Your task to perform on an android device: create a new album in the google photos Image 0: 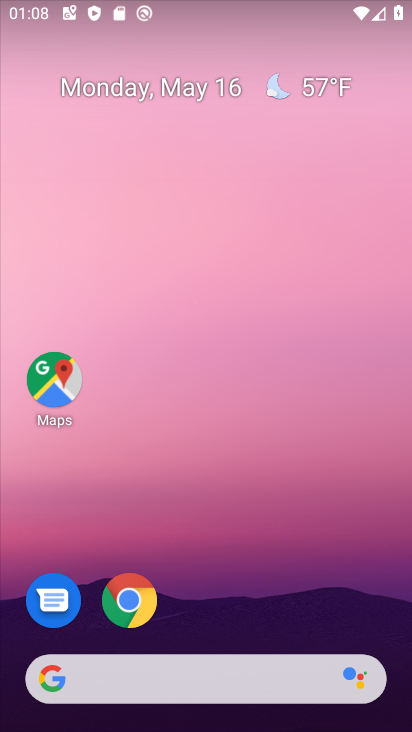
Step 0: drag from (203, 634) to (215, 260)
Your task to perform on an android device: create a new album in the google photos Image 1: 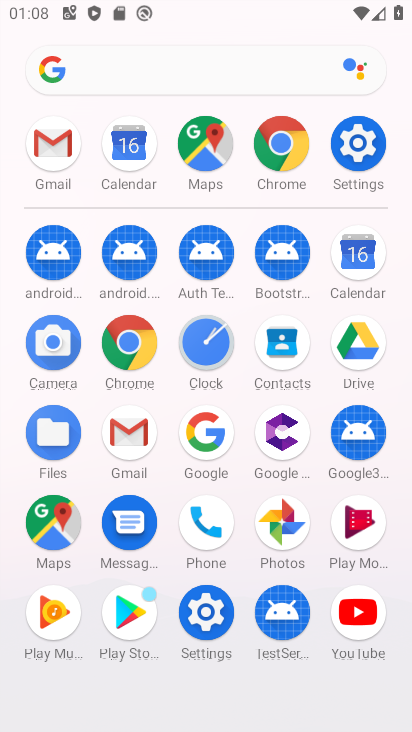
Step 1: click (277, 515)
Your task to perform on an android device: create a new album in the google photos Image 2: 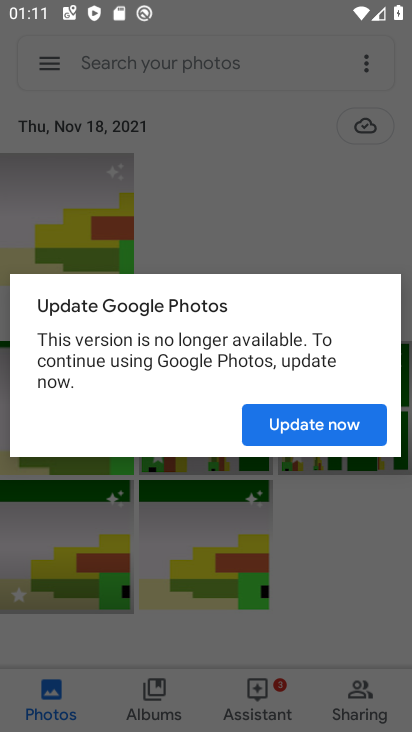
Step 2: click (317, 431)
Your task to perform on an android device: create a new album in the google photos Image 3: 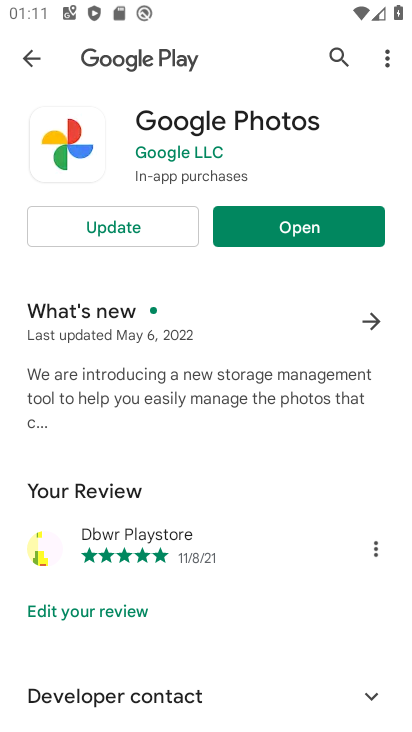
Step 3: click (269, 227)
Your task to perform on an android device: create a new album in the google photos Image 4: 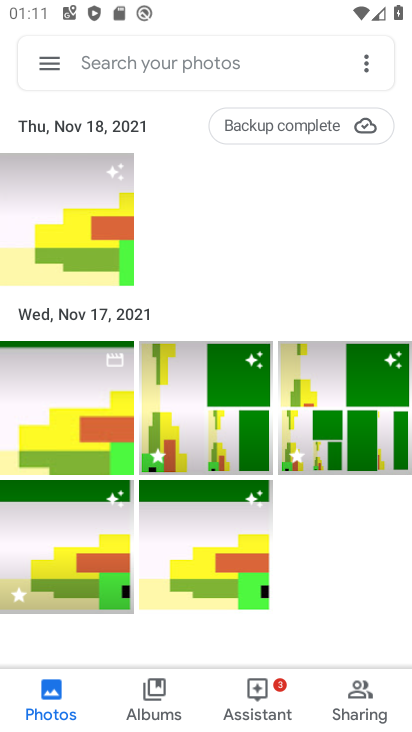
Step 4: click (365, 68)
Your task to perform on an android device: create a new album in the google photos Image 5: 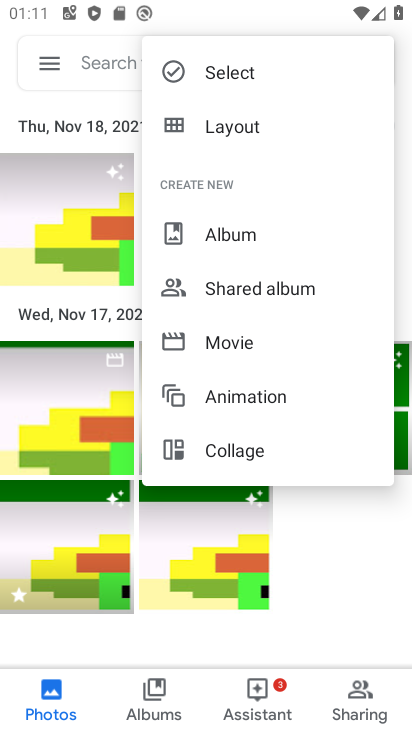
Step 5: click (227, 240)
Your task to perform on an android device: create a new album in the google photos Image 6: 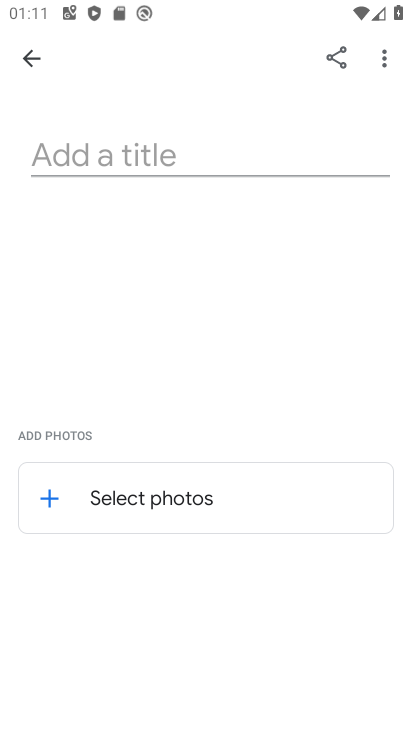
Step 6: click (80, 145)
Your task to perform on an android device: create a new album in the google photos Image 7: 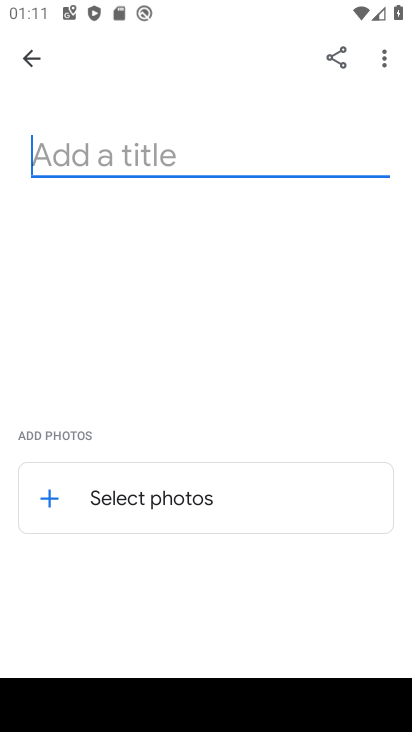
Step 7: type "bgbg"
Your task to perform on an android device: create a new album in the google photos Image 8: 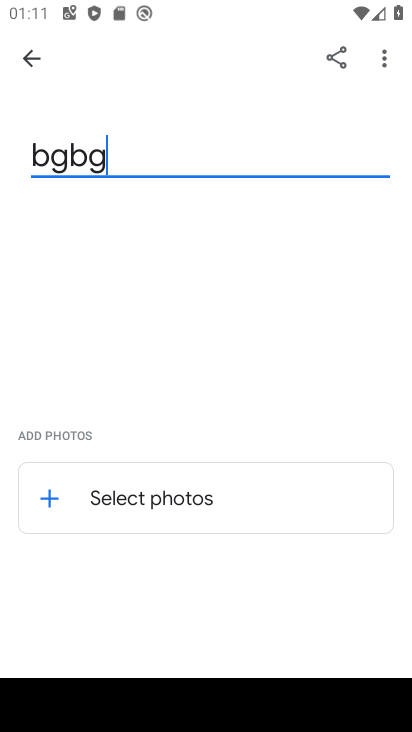
Step 8: click (114, 508)
Your task to perform on an android device: create a new album in the google photos Image 9: 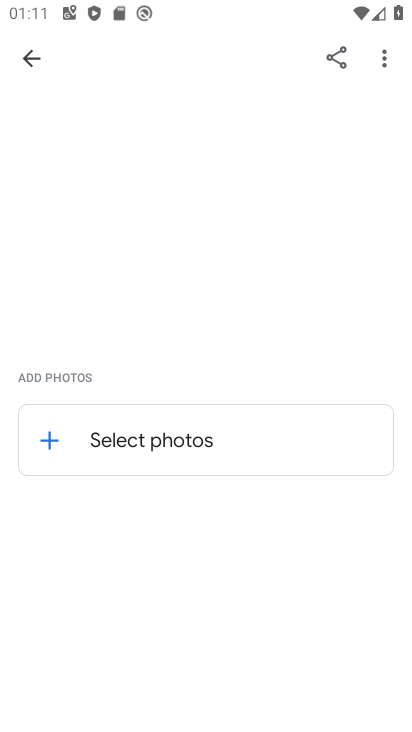
Step 9: click (130, 442)
Your task to perform on an android device: create a new album in the google photos Image 10: 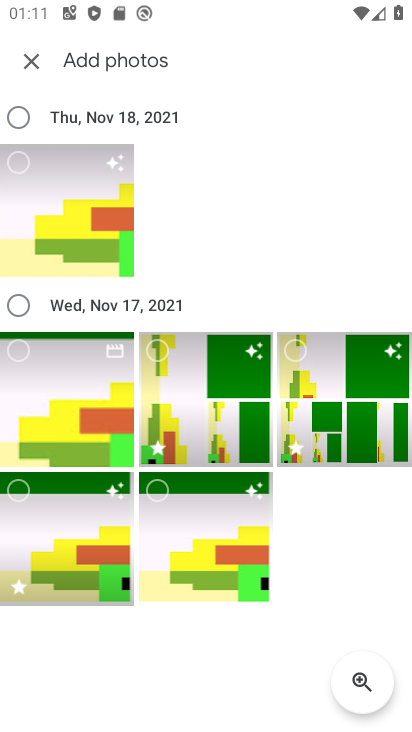
Step 10: click (14, 119)
Your task to perform on an android device: create a new album in the google photos Image 11: 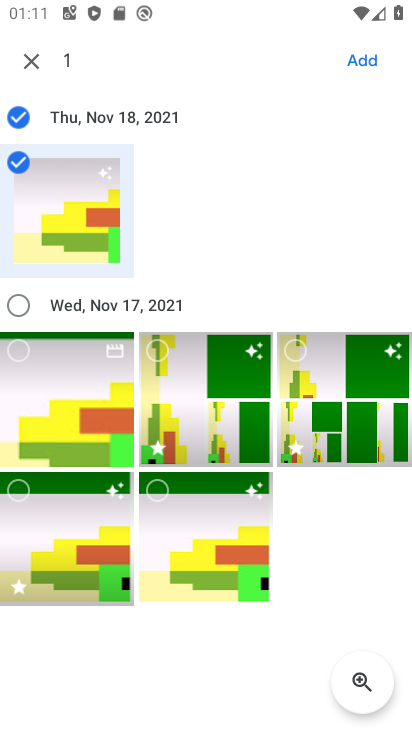
Step 11: click (376, 59)
Your task to perform on an android device: create a new album in the google photos Image 12: 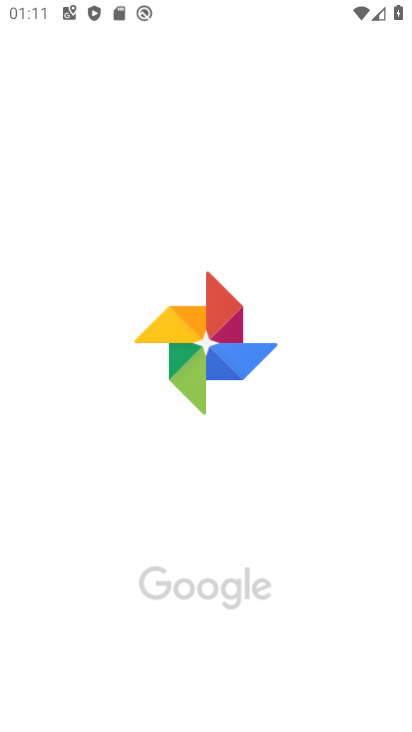
Step 12: task complete